Your task to perform on an android device: check android version Image 0: 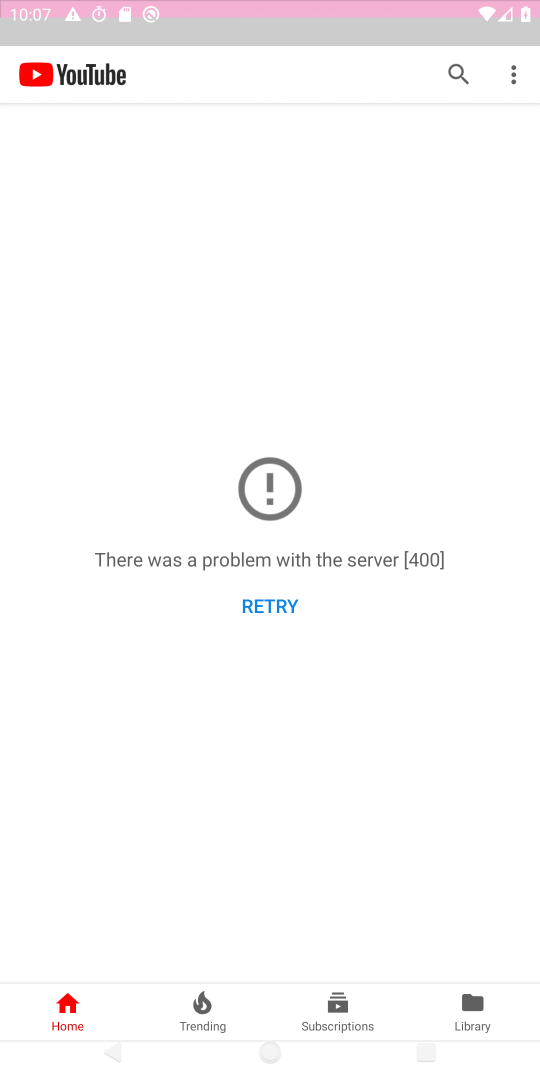
Step 0: click (516, 440)
Your task to perform on an android device: check android version Image 1: 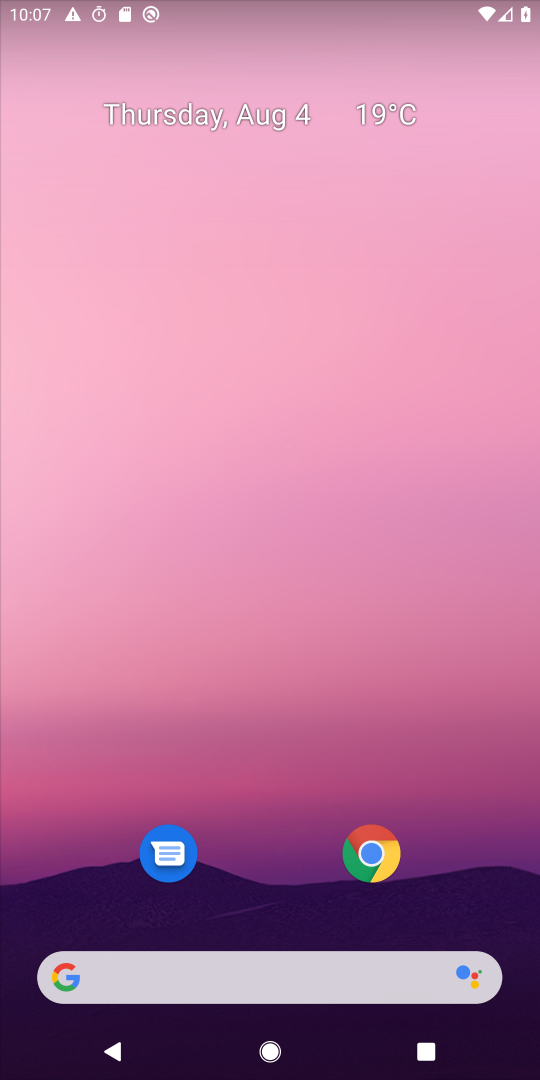
Step 1: drag from (276, 951) to (257, 50)
Your task to perform on an android device: check android version Image 2: 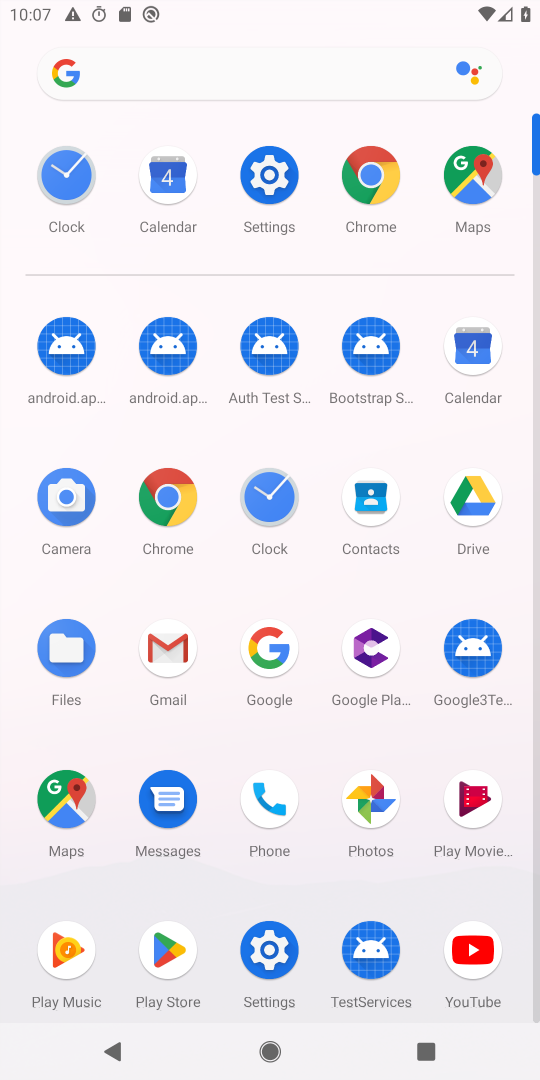
Step 2: click (259, 160)
Your task to perform on an android device: check android version Image 3: 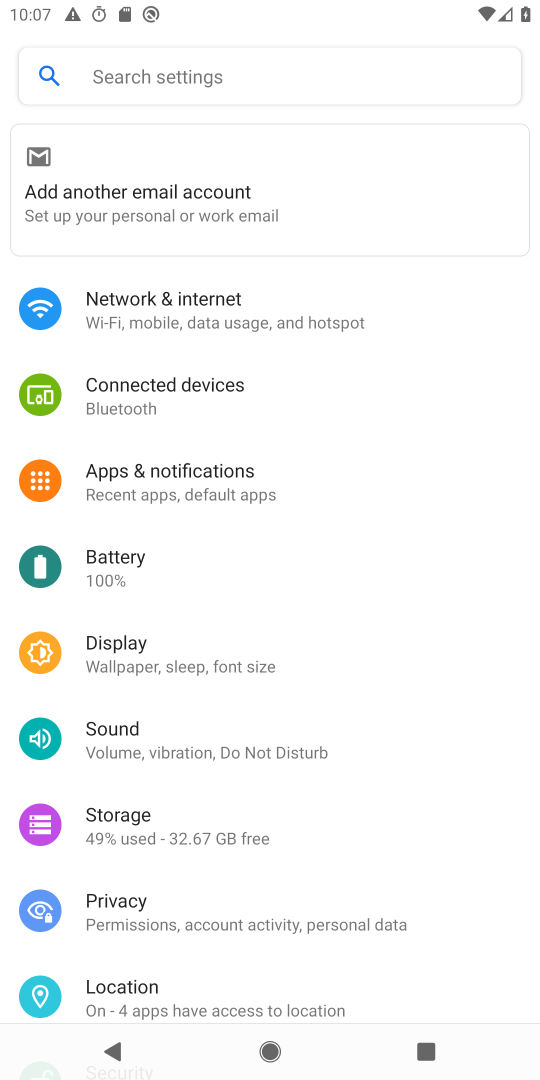
Step 3: drag from (164, 873) to (241, 137)
Your task to perform on an android device: check android version Image 4: 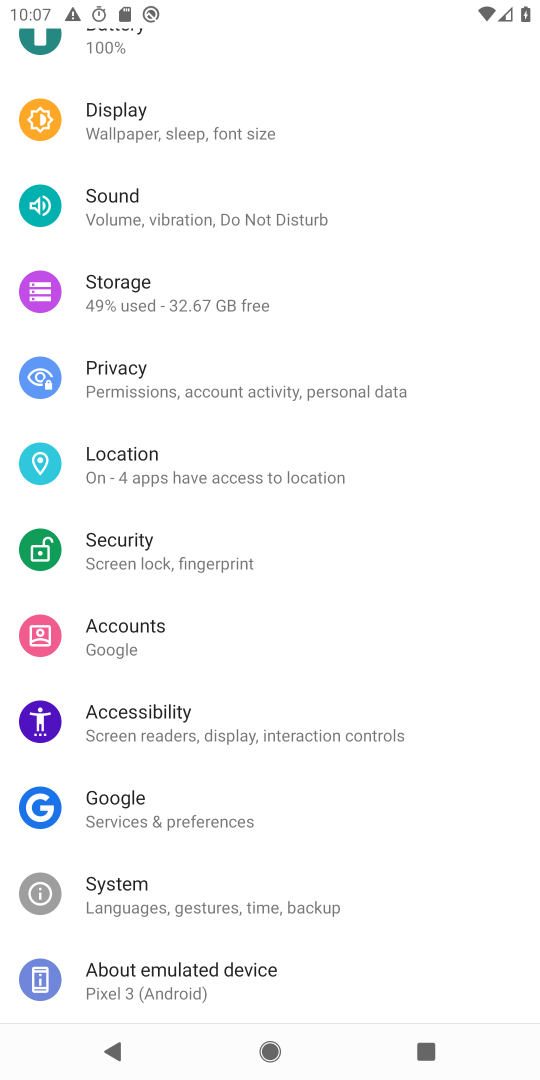
Step 4: drag from (252, 897) to (284, 511)
Your task to perform on an android device: check android version Image 5: 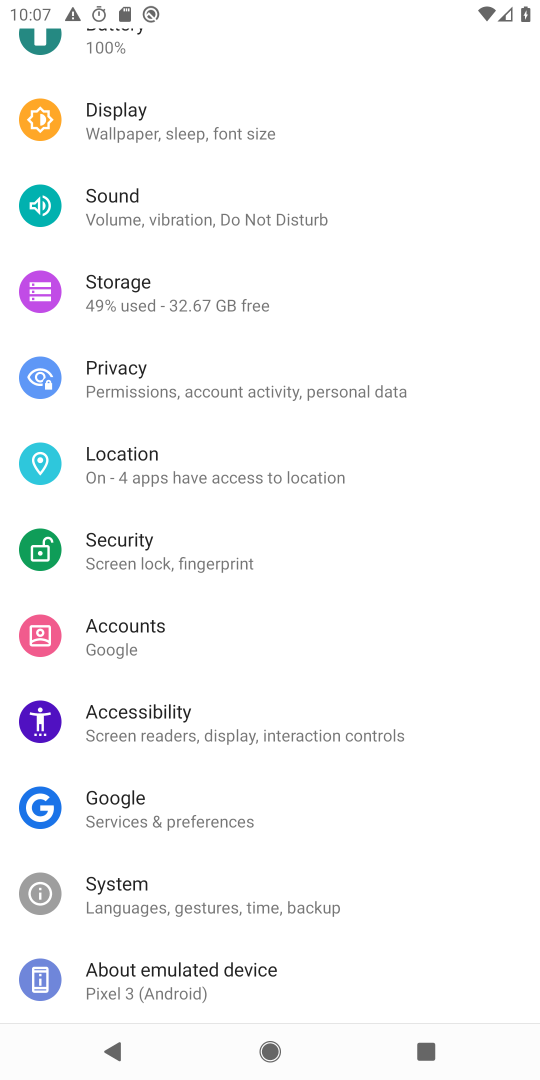
Step 5: click (219, 981)
Your task to perform on an android device: check android version Image 6: 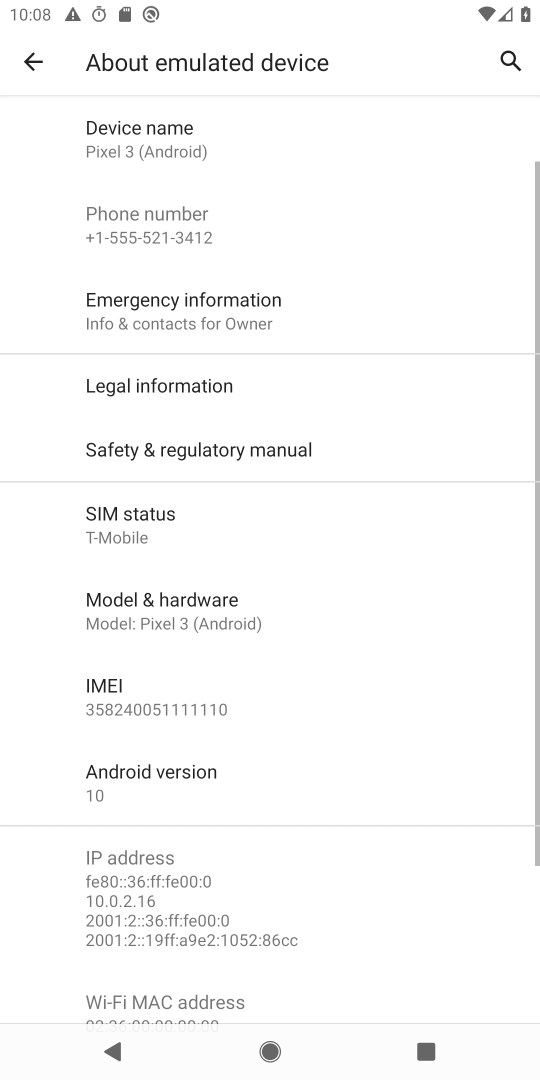
Step 6: click (179, 773)
Your task to perform on an android device: check android version Image 7: 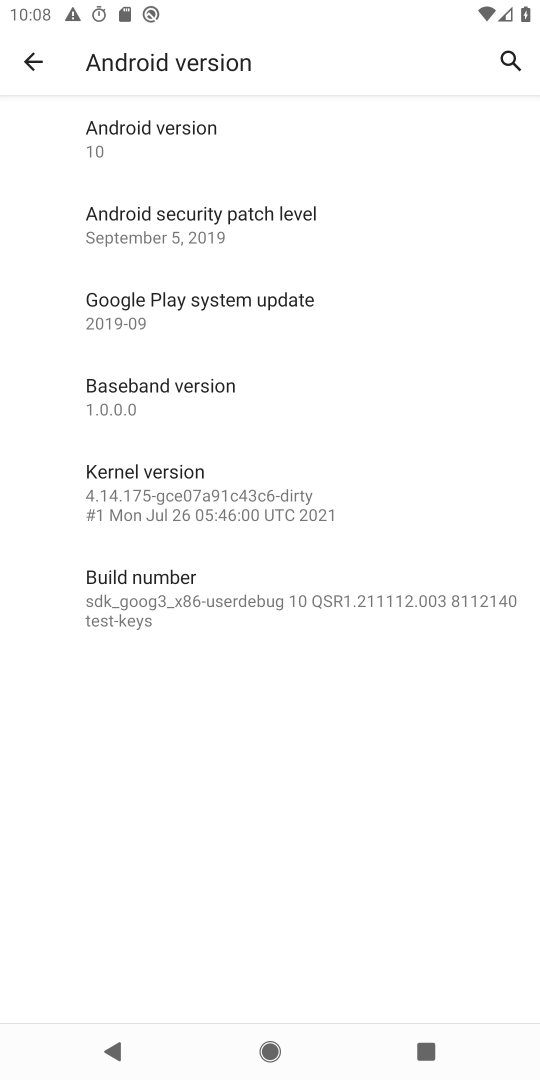
Step 7: task complete